Your task to perform on an android device: Go to location settings Image 0: 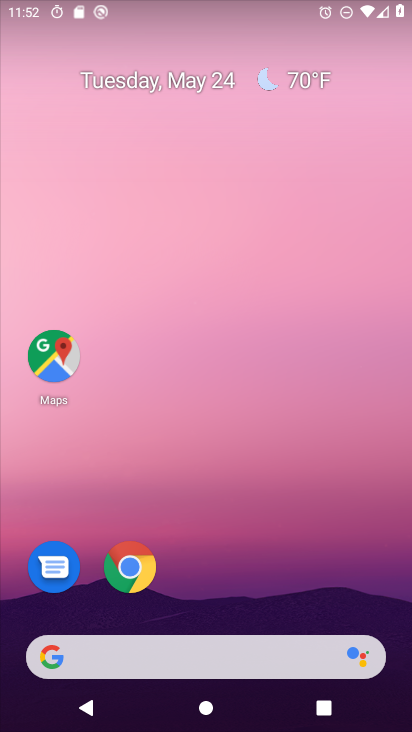
Step 0: drag from (397, 631) to (390, 200)
Your task to perform on an android device: Go to location settings Image 1: 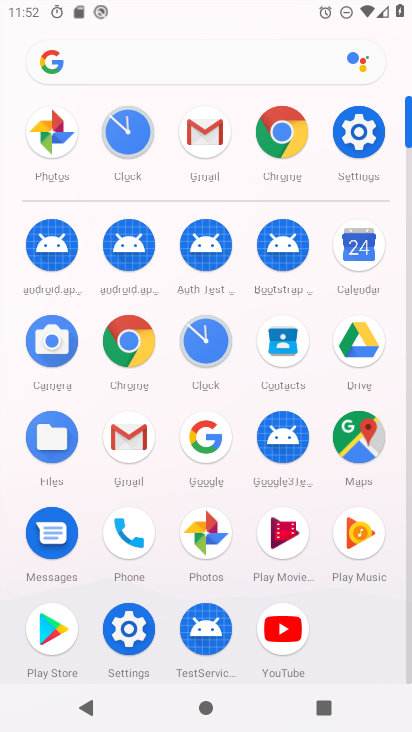
Step 1: click (128, 628)
Your task to perform on an android device: Go to location settings Image 2: 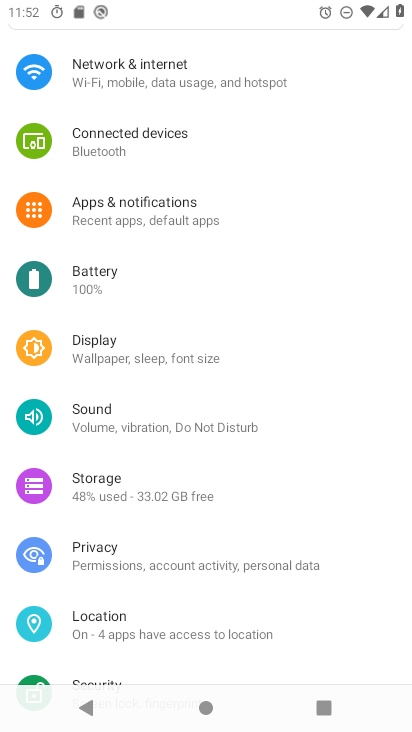
Step 2: click (87, 612)
Your task to perform on an android device: Go to location settings Image 3: 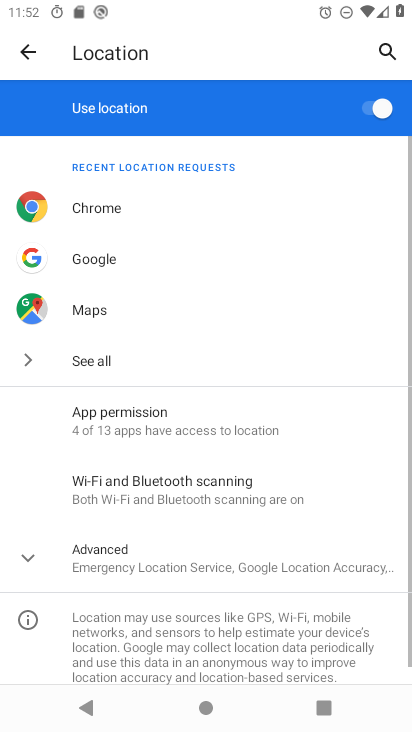
Step 3: task complete